Your task to perform on an android device: change the upload size in google photos Image 0: 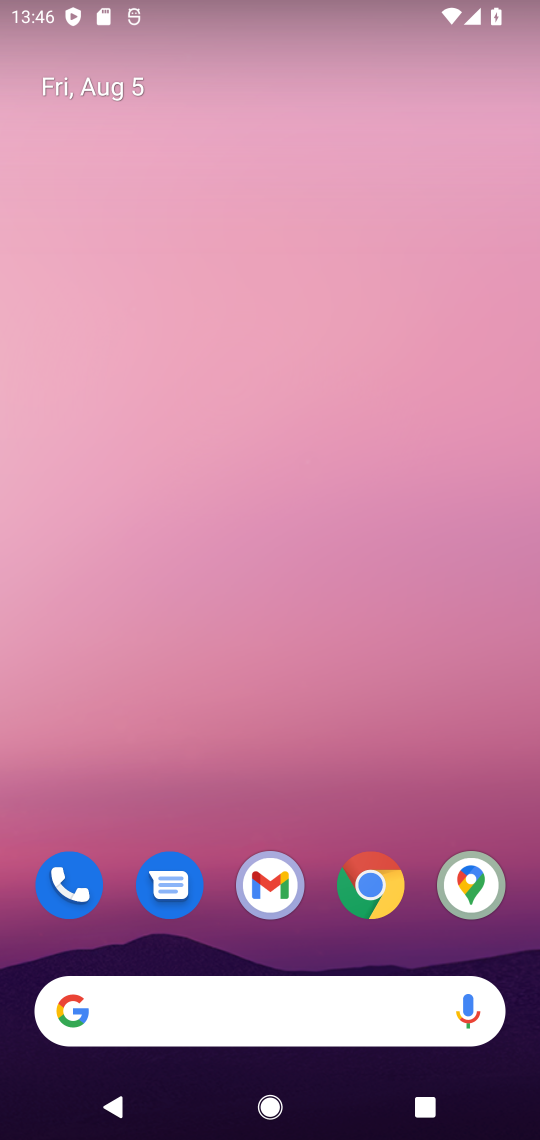
Step 0: drag from (230, 818) to (230, 308)
Your task to perform on an android device: change the upload size in google photos Image 1: 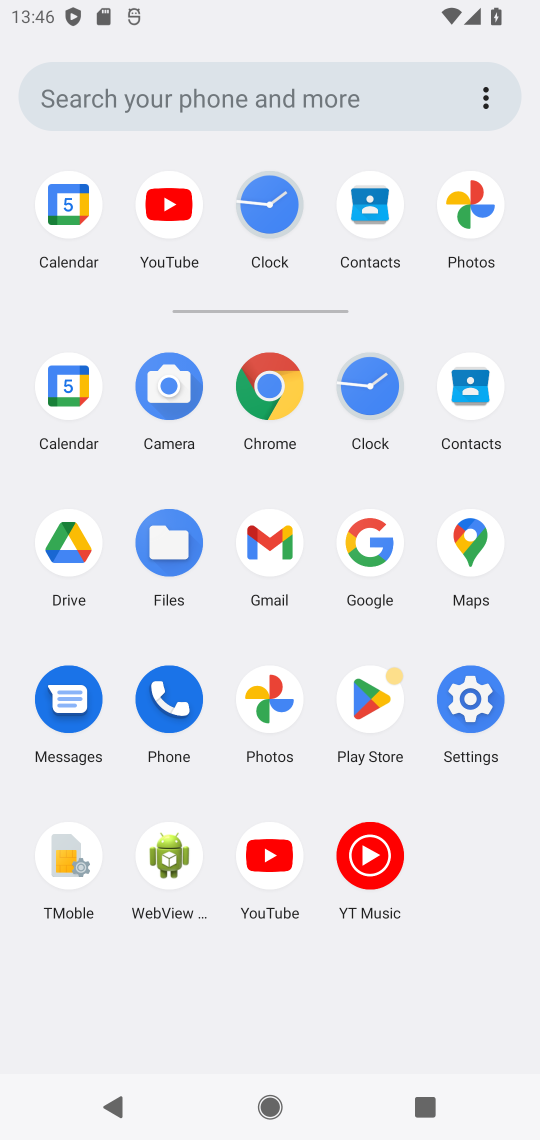
Step 1: click (262, 723)
Your task to perform on an android device: change the upload size in google photos Image 2: 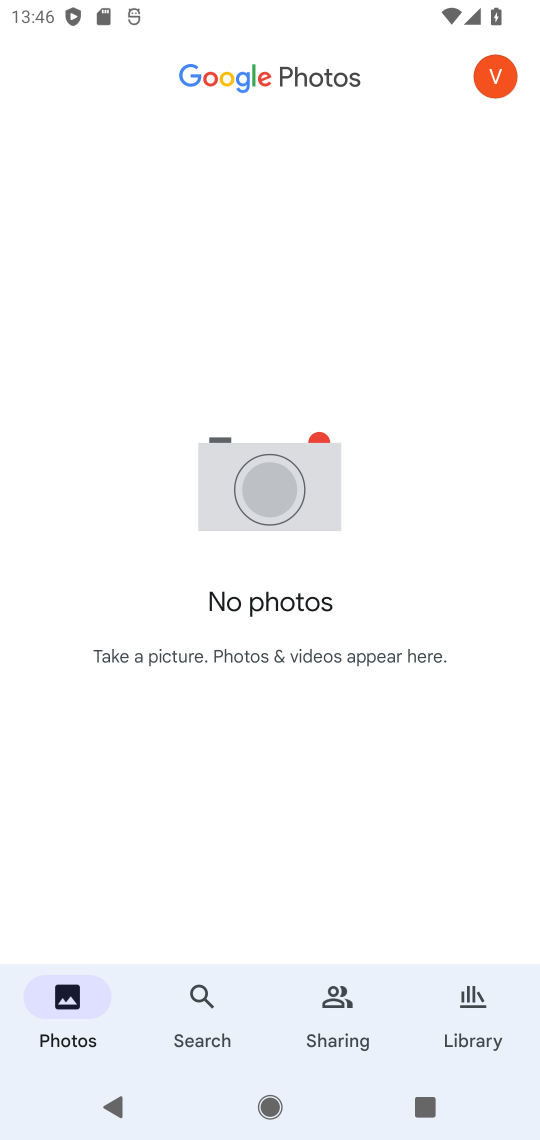
Step 2: click (492, 80)
Your task to perform on an android device: change the upload size in google photos Image 3: 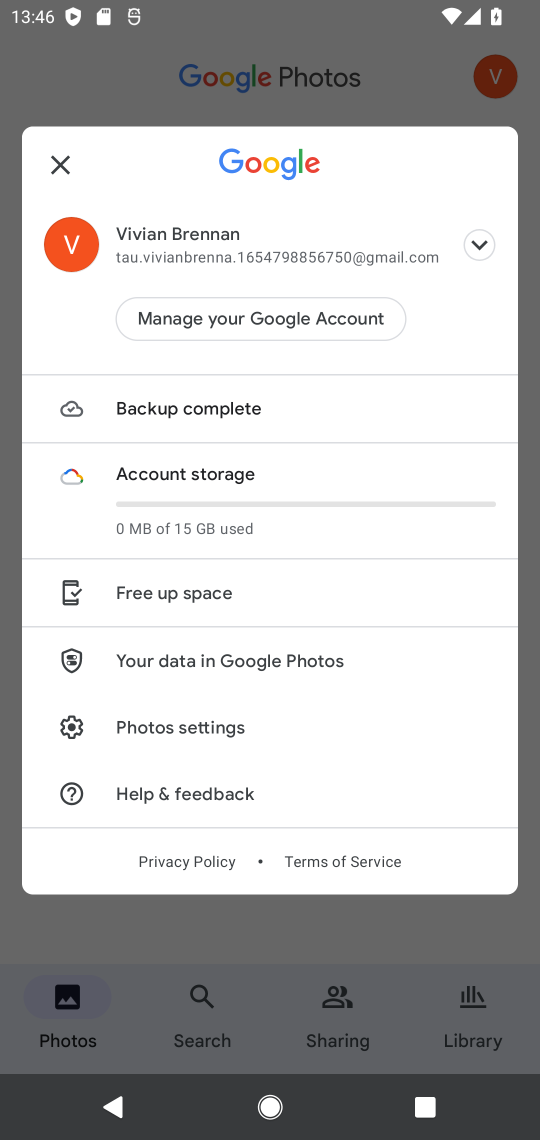
Step 3: click (193, 728)
Your task to perform on an android device: change the upload size in google photos Image 4: 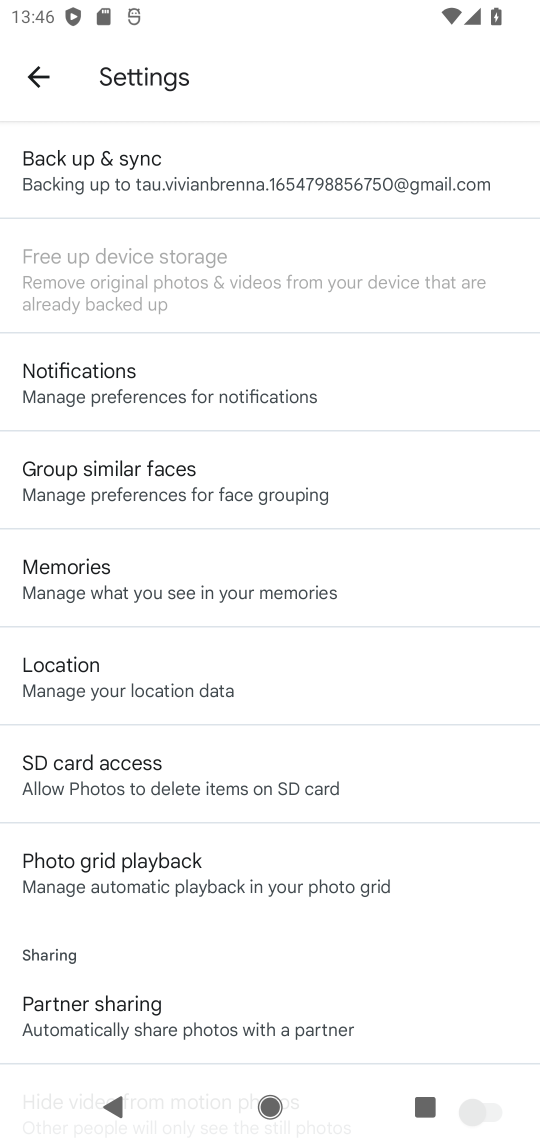
Step 4: click (214, 185)
Your task to perform on an android device: change the upload size in google photos Image 5: 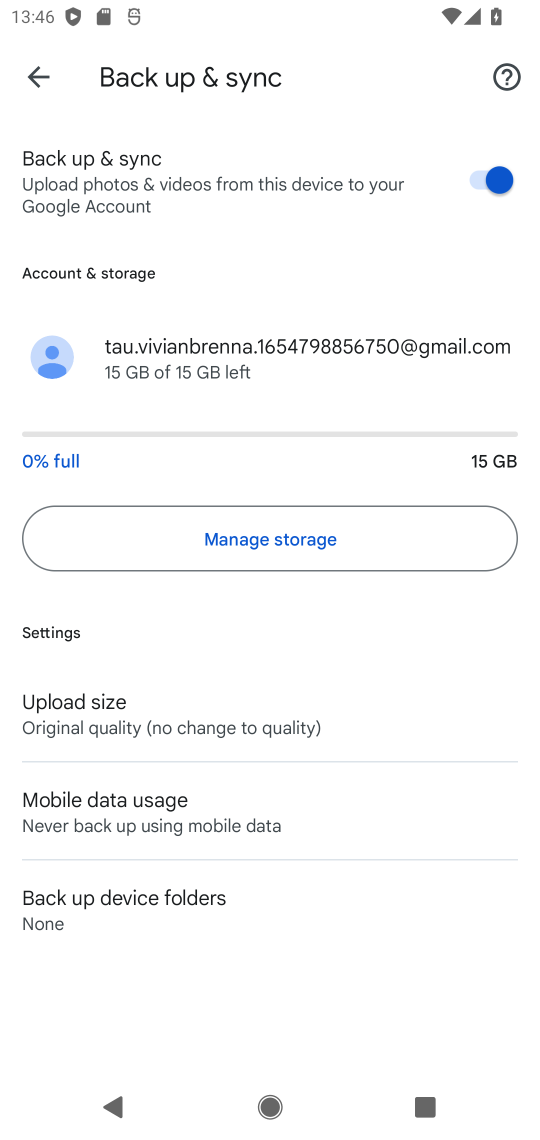
Step 5: click (155, 721)
Your task to perform on an android device: change the upload size in google photos Image 6: 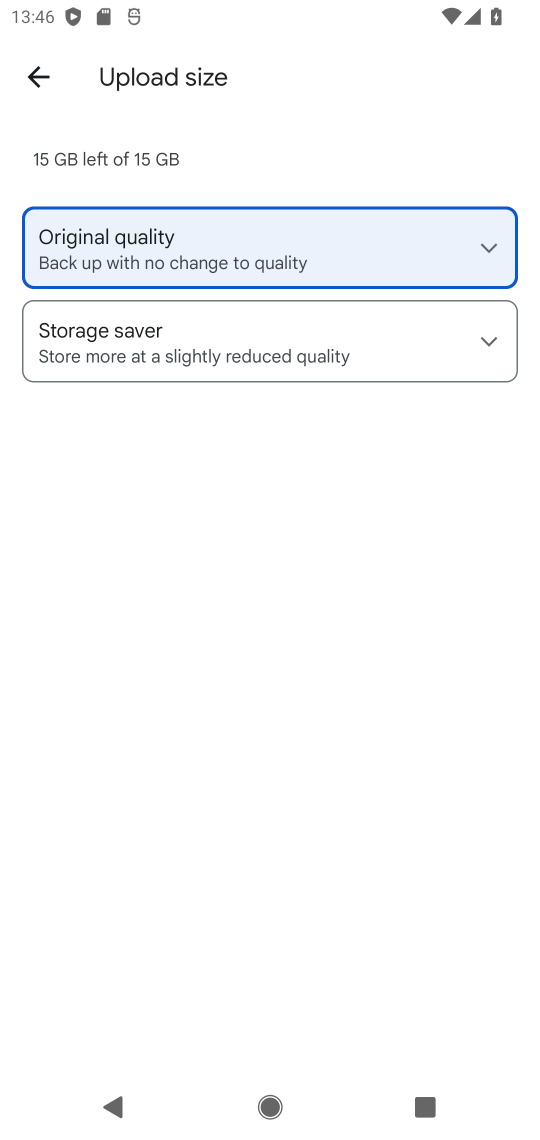
Step 6: click (192, 346)
Your task to perform on an android device: change the upload size in google photos Image 7: 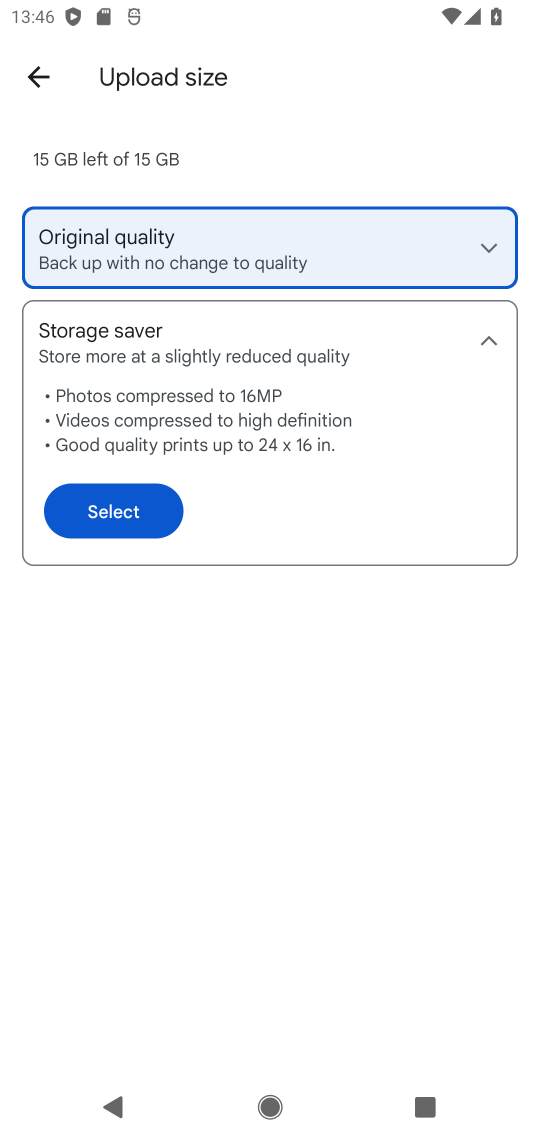
Step 7: click (137, 520)
Your task to perform on an android device: change the upload size in google photos Image 8: 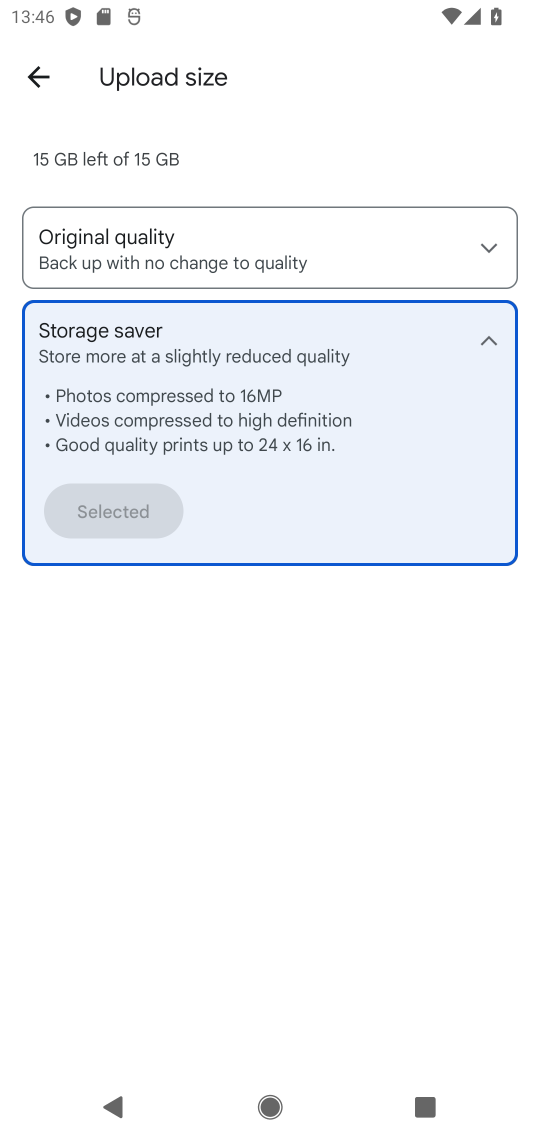
Step 8: task complete